Your task to perform on an android device: Search for the new nike air max 270 on Nike.com Image 0: 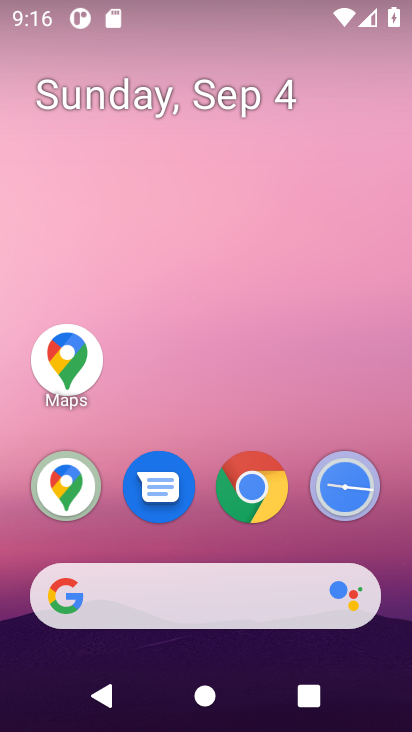
Step 0: click (69, 375)
Your task to perform on an android device: Search for the new nike air max 270 on Nike.com Image 1: 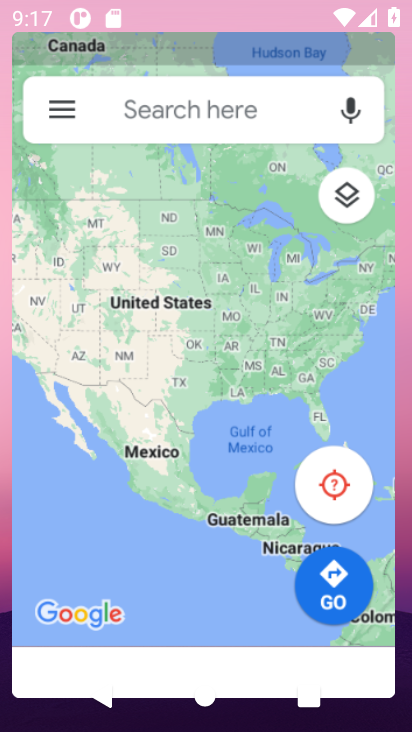
Step 1: task complete